Your task to perform on an android device: Search for Italian restaurants on Maps Image 0: 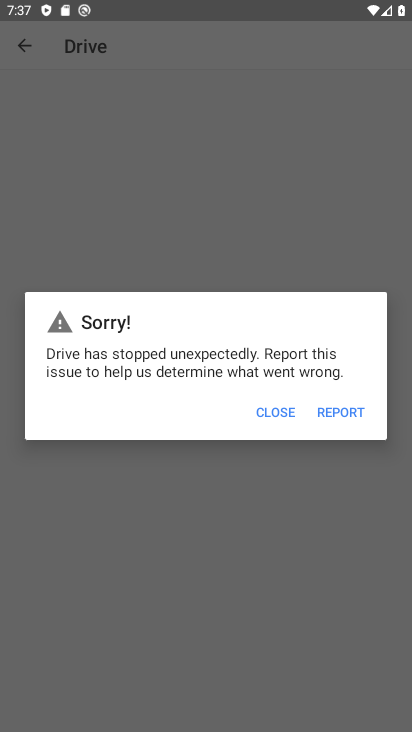
Step 0: press home button
Your task to perform on an android device: Search for Italian restaurants on Maps Image 1: 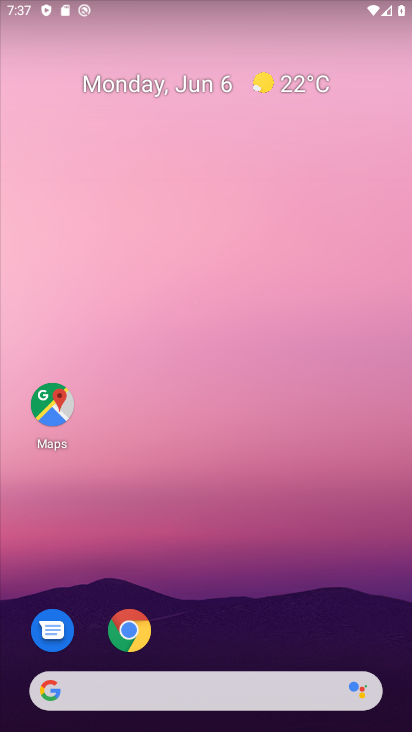
Step 1: click (61, 406)
Your task to perform on an android device: Search for Italian restaurants on Maps Image 2: 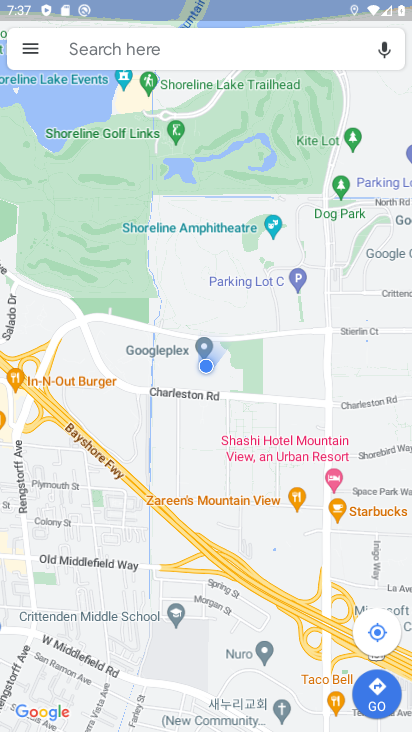
Step 2: click (214, 42)
Your task to perform on an android device: Search for Italian restaurants on Maps Image 3: 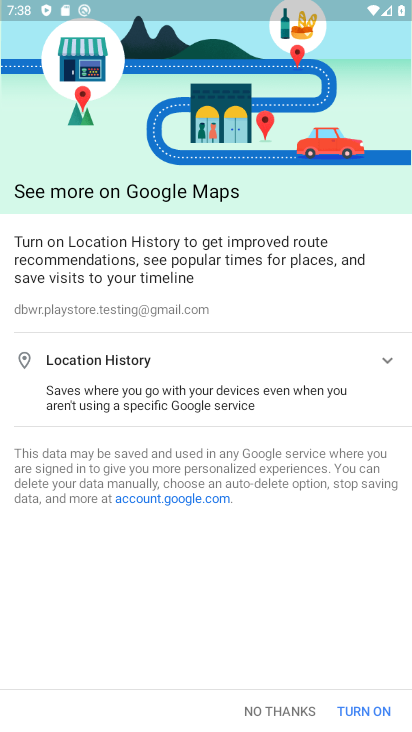
Step 3: click (295, 716)
Your task to perform on an android device: Search for Italian restaurants on Maps Image 4: 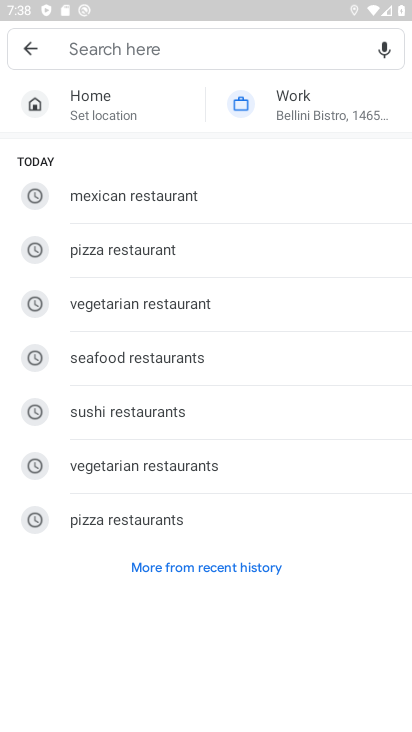
Step 4: type "italian "
Your task to perform on an android device: Search for Italian restaurants on Maps Image 5: 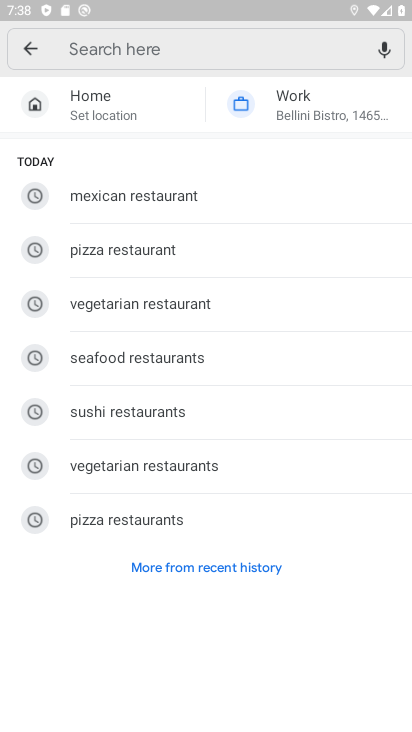
Step 5: click (180, 48)
Your task to perform on an android device: Search for Italian restaurants on Maps Image 6: 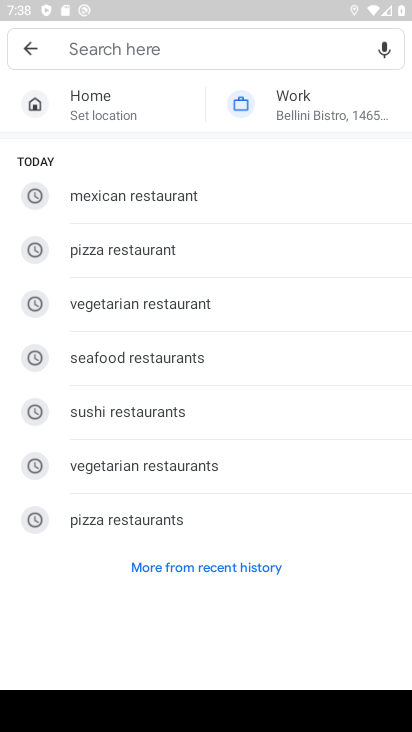
Step 6: type "italian restaurants"
Your task to perform on an android device: Search for Italian restaurants on Maps Image 7: 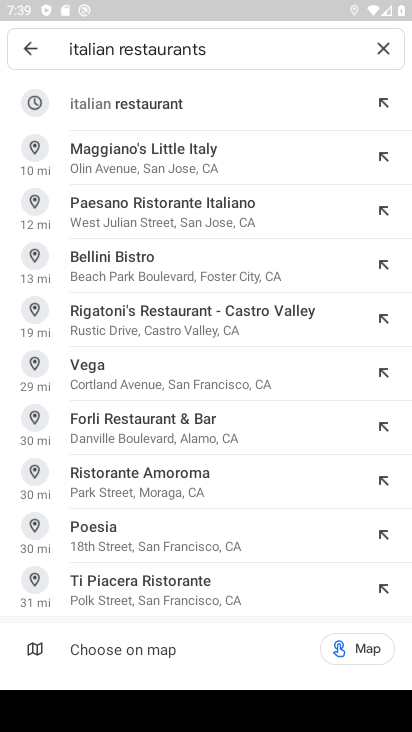
Step 7: click (191, 106)
Your task to perform on an android device: Search for Italian restaurants on Maps Image 8: 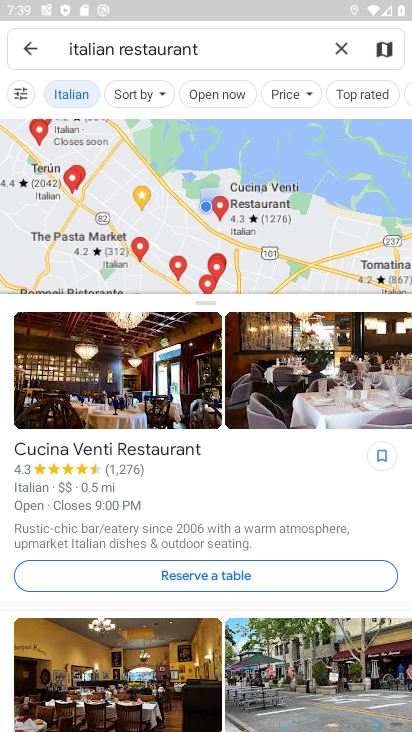
Step 8: task complete